Your task to perform on an android device: open app "The Home Depot" Image 0: 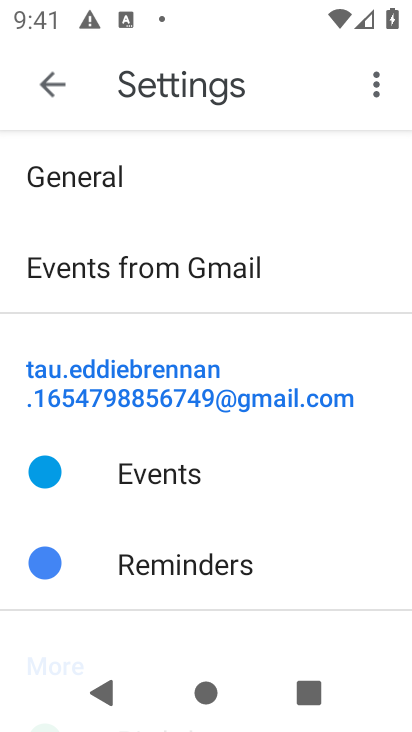
Step 0: press home button
Your task to perform on an android device: open app "The Home Depot" Image 1: 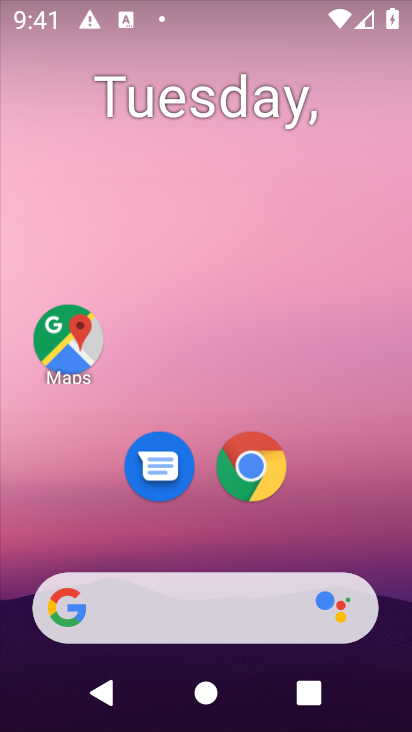
Step 1: drag from (174, 523) to (259, 18)
Your task to perform on an android device: open app "The Home Depot" Image 2: 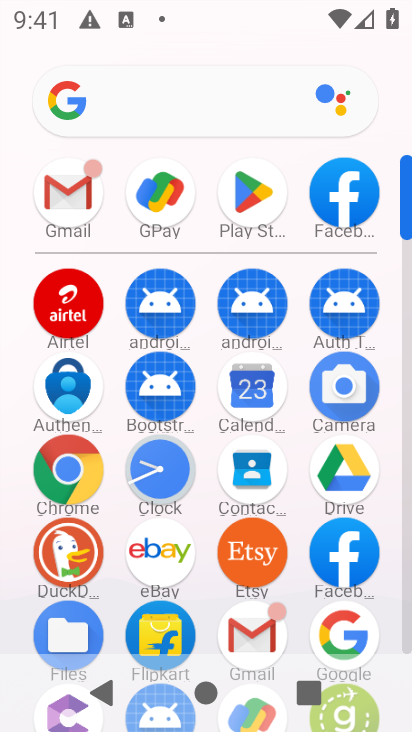
Step 2: click (242, 192)
Your task to perform on an android device: open app "The Home Depot" Image 3: 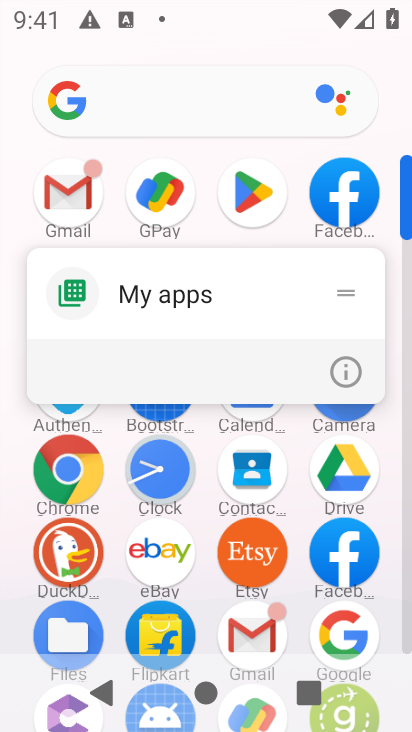
Step 3: click (258, 195)
Your task to perform on an android device: open app "The Home Depot" Image 4: 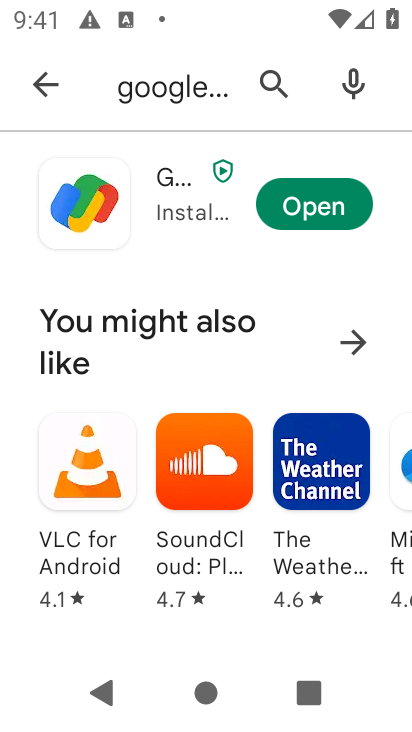
Step 4: click (267, 80)
Your task to perform on an android device: open app "The Home Depot" Image 5: 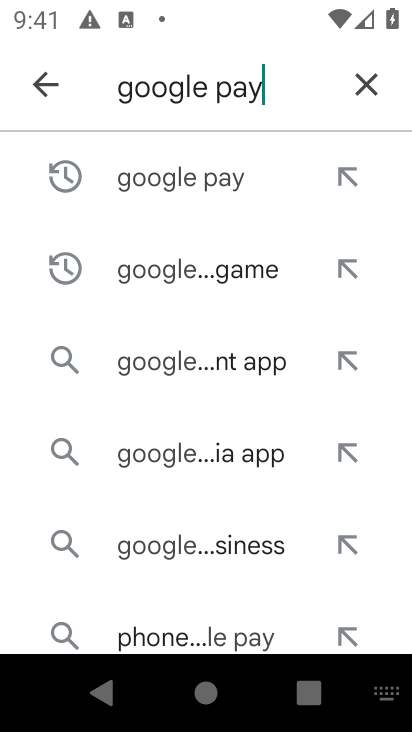
Step 5: click (354, 80)
Your task to perform on an android device: open app "The Home Depot" Image 6: 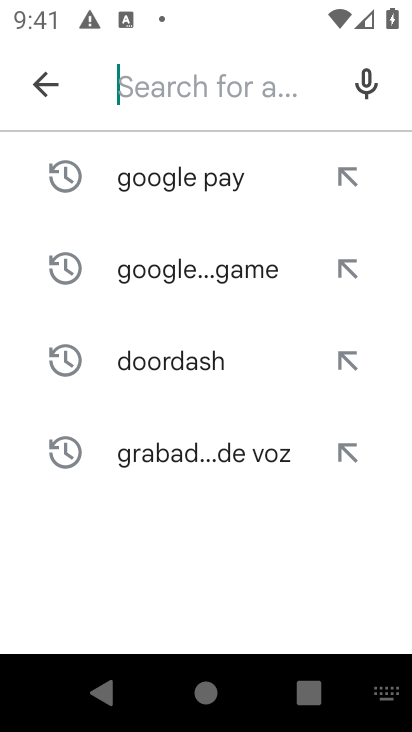
Step 6: click (156, 100)
Your task to perform on an android device: open app "The Home Depot" Image 7: 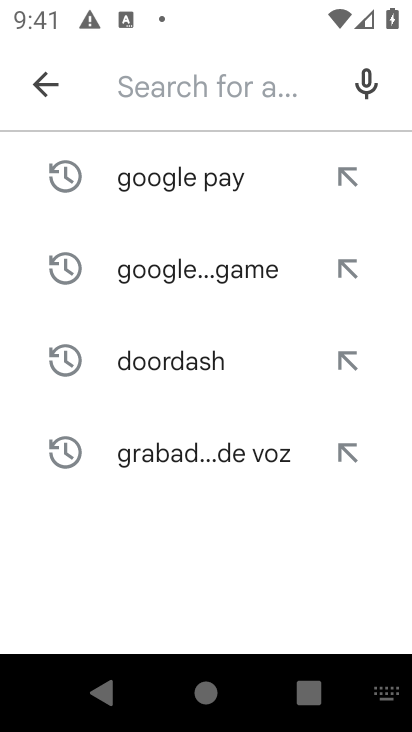
Step 7: type "The Home Depot"
Your task to perform on an android device: open app "The Home Depot" Image 8: 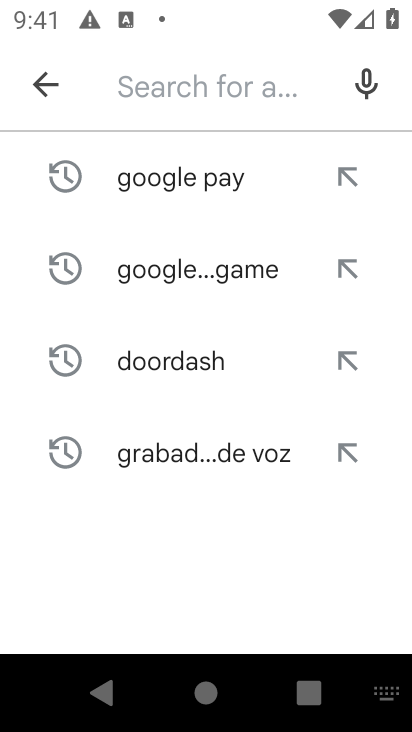
Step 8: click (153, 589)
Your task to perform on an android device: open app "The Home Depot" Image 9: 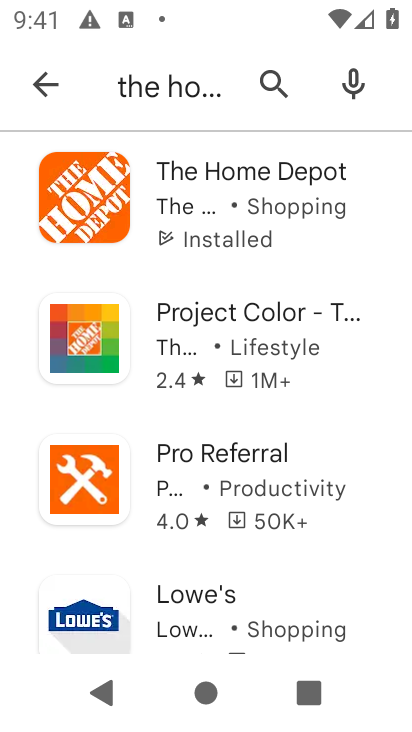
Step 9: click (252, 189)
Your task to perform on an android device: open app "The Home Depot" Image 10: 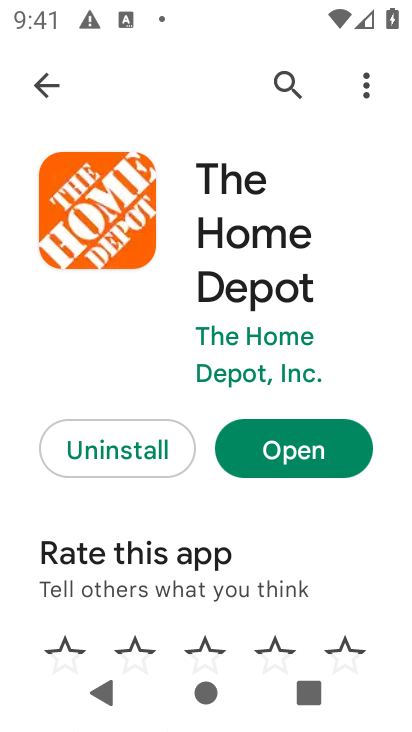
Step 10: click (278, 442)
Your task to perform on an android device: open app "The Home Depot" Image 11: 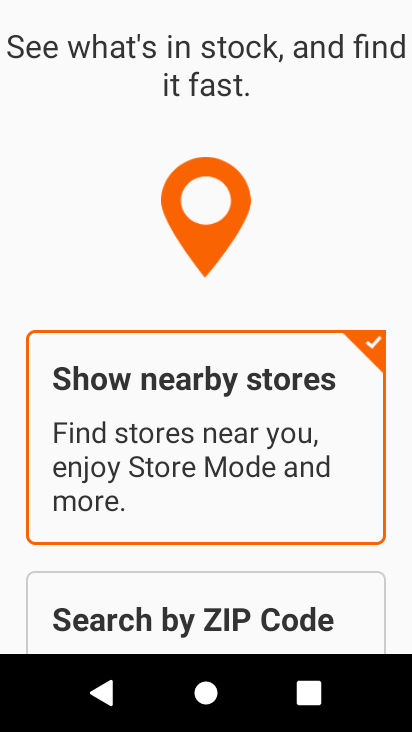
Step 11: task complete